Your task to perform on an android device: Open the stopwatch Image 0: 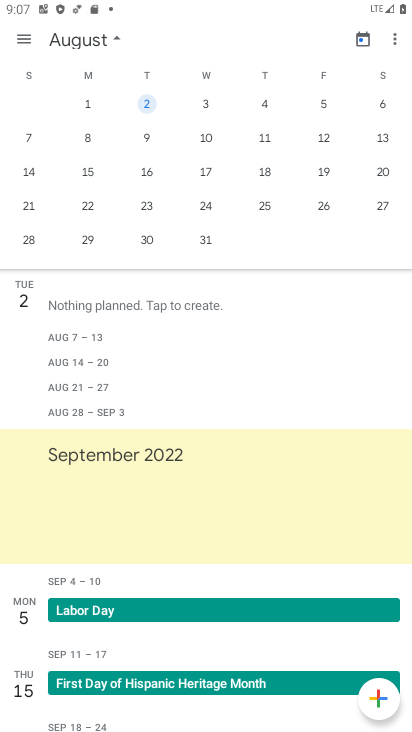
Step 0: press home button
Your task to perform on an android device: Open the stopwatch Image 1: 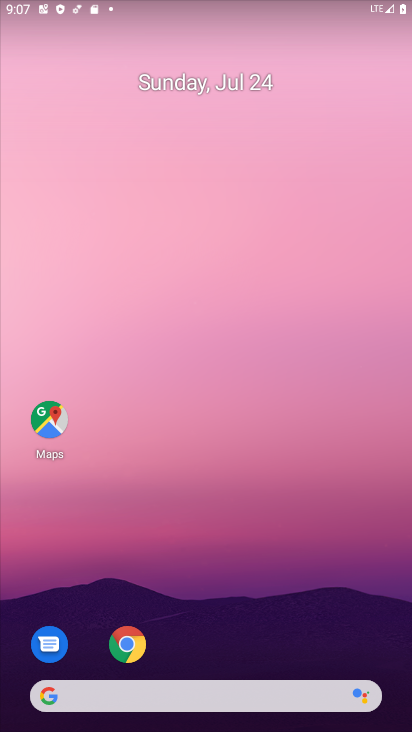
Step 1: drag from (28, 640) to (249, 64)
Your task to perform on an android device: Open the stopwatch Image 2: 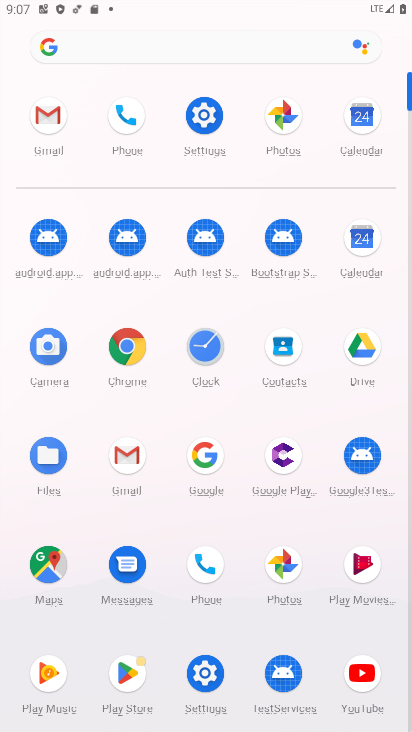
Step 2: click (208, 359)
Your task to perform on an android device: Open the stopwatch Image 3: 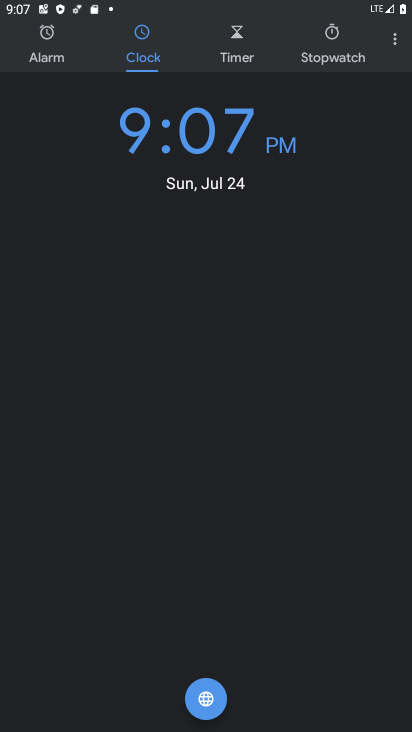
Step 3: click (337, 31)
Your task to perform on an android device: Open the stopwatch Image 4: 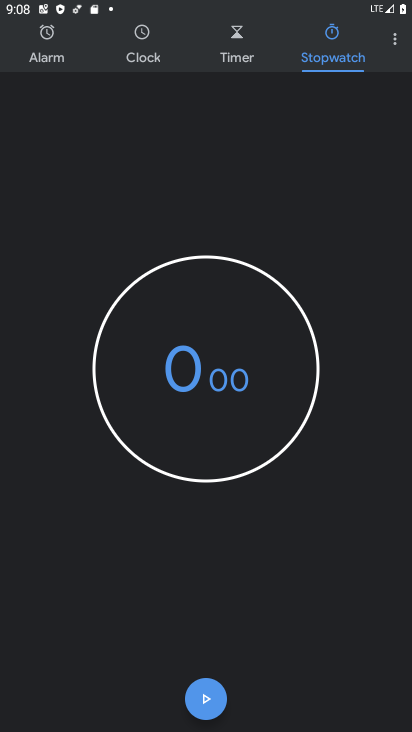
Step 4: task complete